Your task to perform on an android device: Go to privacy settings Image 0: 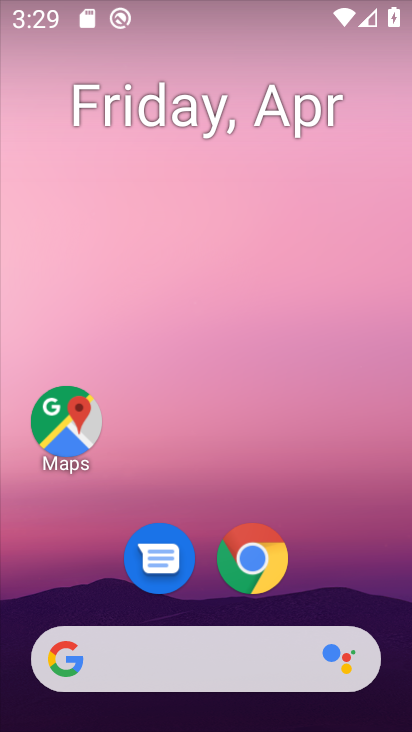
Step 0: drag from (322, 511) to (302, 264)
Your task to perform on an android device: Go to privacy settings Image 1: 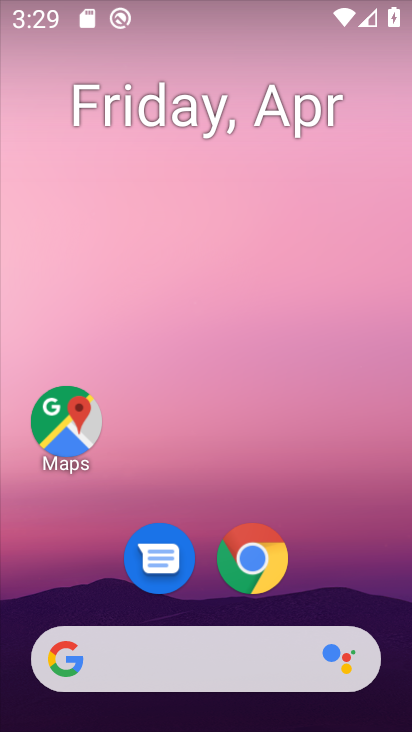
Step 1: drag from (335, 338) to (342, 217)
Your task to perform on an android device: Go to privacy settings Image 2: 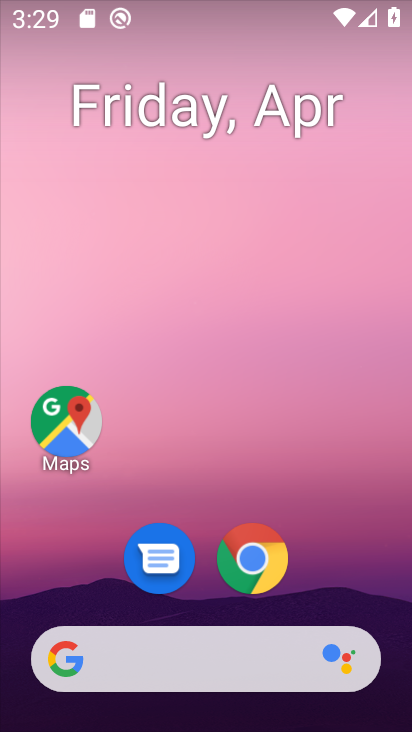
Step 2: drag from (272, 394) to (245, 193)
Your task to perform on an android device: Go to privacy settings Image 3: 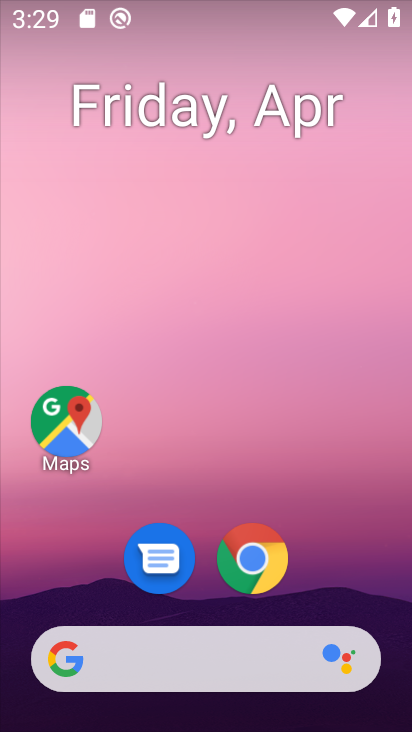
Step 3: drag from (310, 571) to (263, 151)
Your task to perform on an android device: Go to privacy settings Image 4: 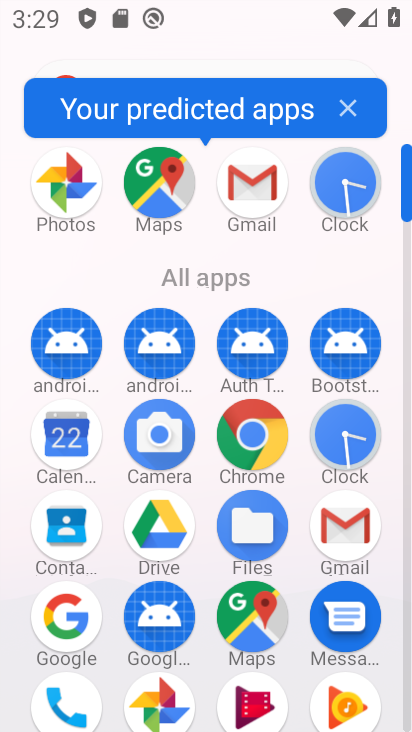
Step 4: drag from (290, 625) to (293, 215)
Your task to perform on an android device: Go to privacy settings Image 5: 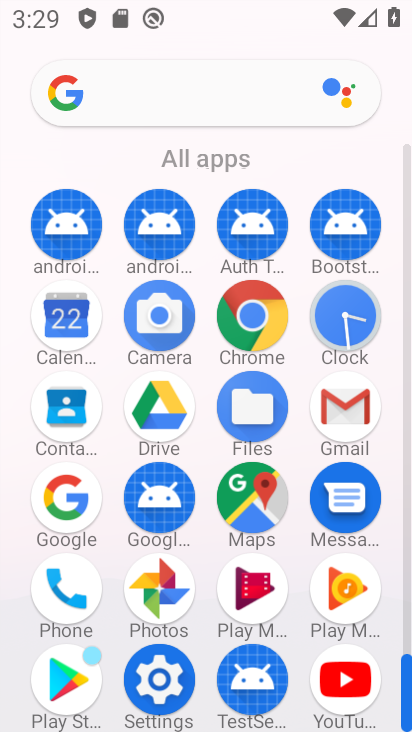
Step 5: click (152, 680)
Your task to perform on an android device: Go to privacy settings Image 6: 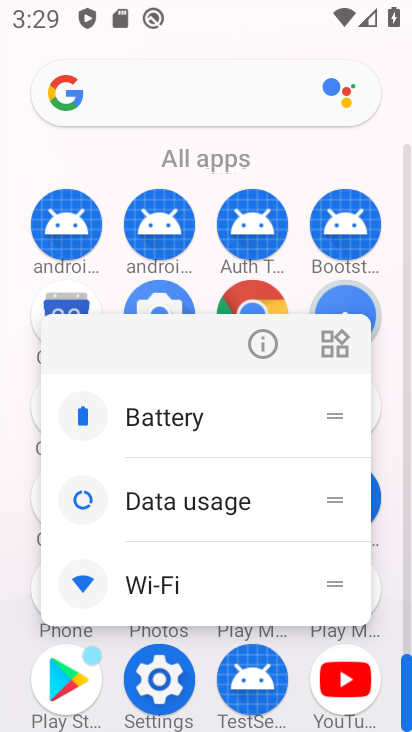
Step 6: click (162, 684)
Your task to perform on an android device: Go to privacy settings Image 7: 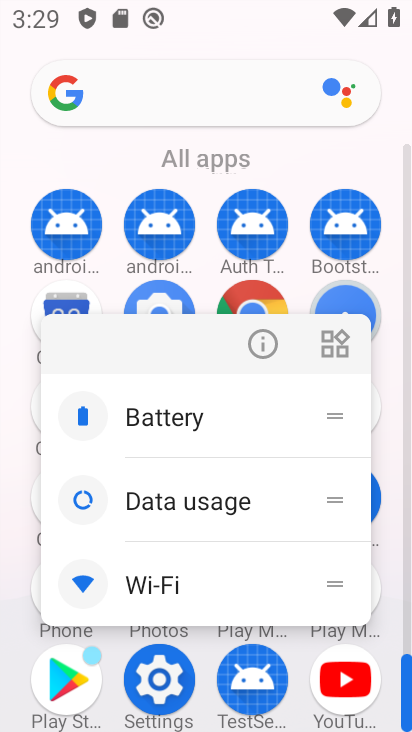
Step 7: click (162, 684)
Your task to perform on an android device: Go to privacy settings Image 8: 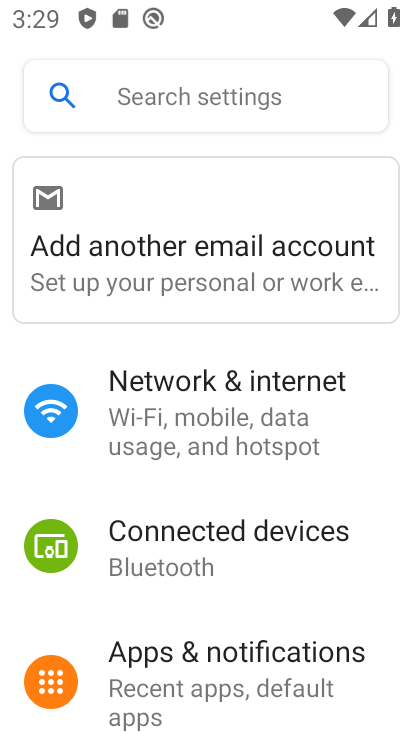
Step 8: drag from (230, 651) to (228, 319)
Your task to perform on an android device: Go to privacy settings Image 9: 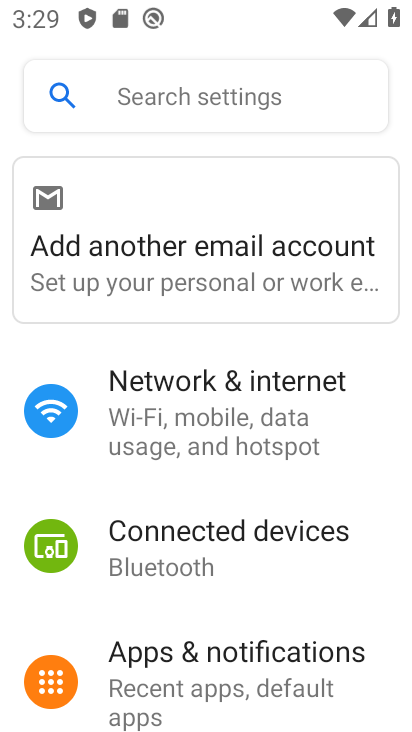
Step 9: drag from (177, 577) to (328, 155)
Your task to perform on an android device: Go to privacy settings Image 10: 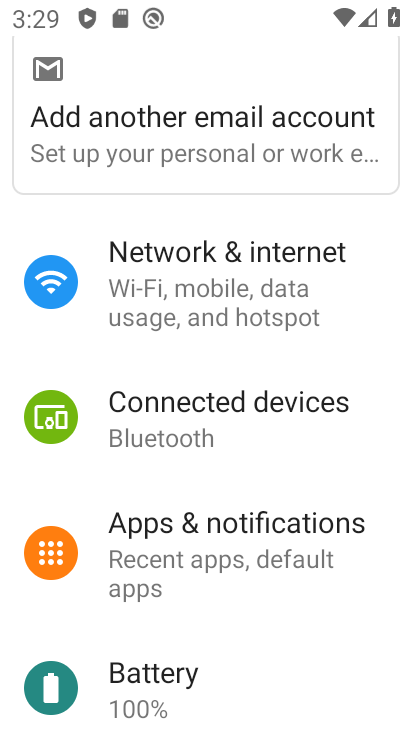
Step 10: drag from (207, 673) to (157, 268)
Your task to perform on an android device: Go to privacy settings Image 11: 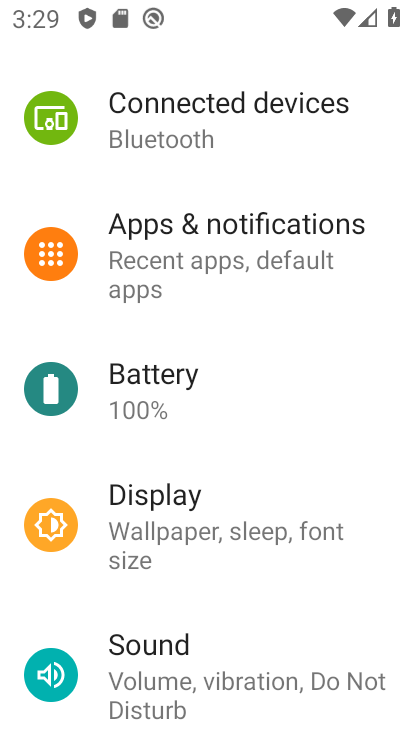
Step 11: drag from (146, 624) to (233, 255)
Your task to perform on an android device: Go to privacy settings Image 12: 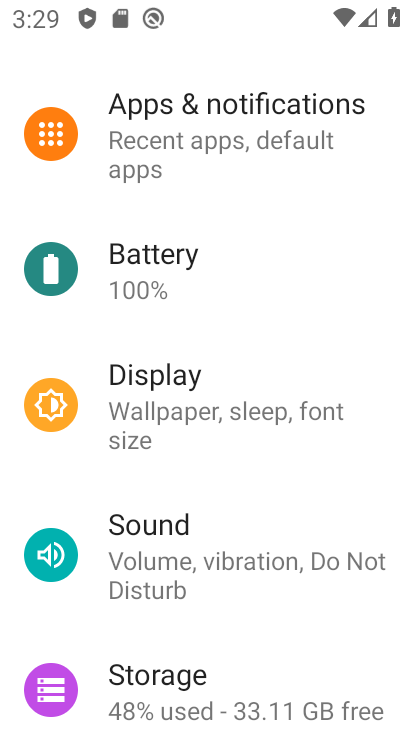
Step 12: drag from (243, 645) to (290, 285)
Your task to perform on an android device: Go to privacy settings Image 13: 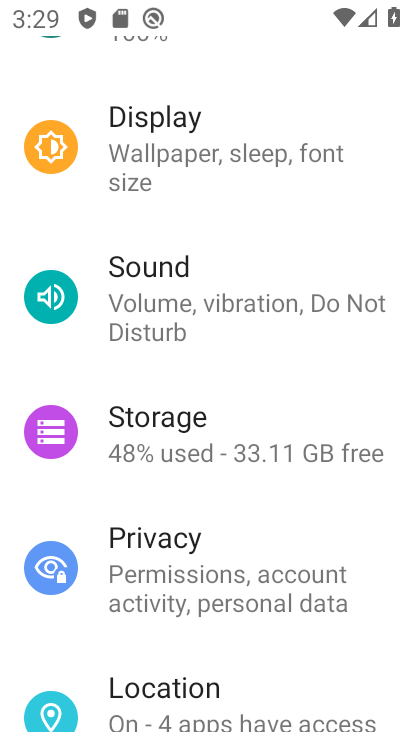
Step 13: click (200, 575)
Your task to perform on an android device: Go to privacy settings Image 14: 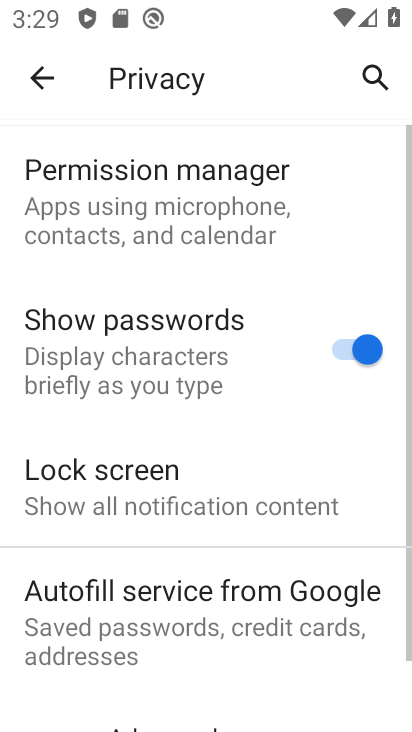
Step 14: task complete